Your task to perform on an android device: Open the web browser Image 0: 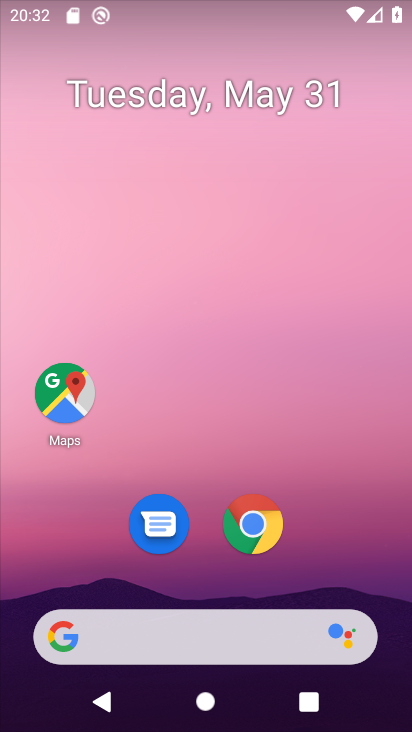
Step 0: drag from (306, 545) to (296, 81)
Your task to perform on an android device: Open the web browser Image 1: 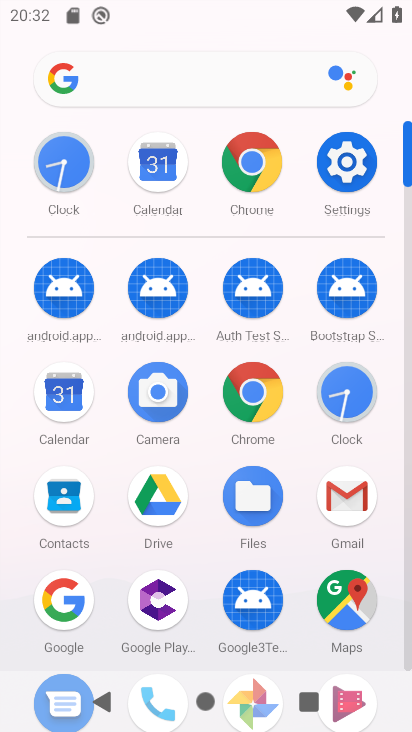
Step 1: click (261, 170)
Your task to perform on an android device: Open the web browser Image 2: 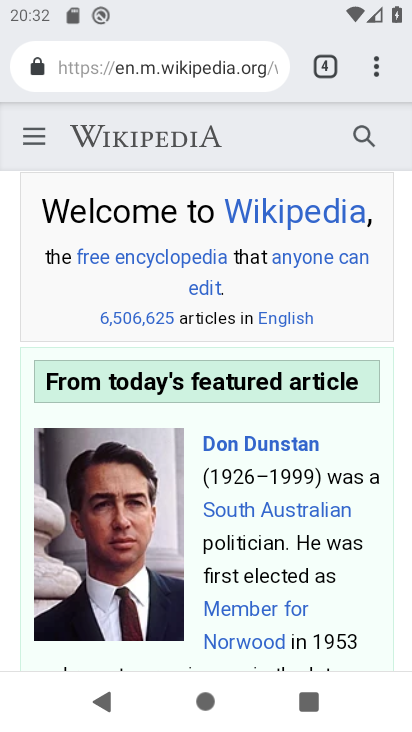
Step 2: press back button
Your task to perform on an android device: Open the web browser Image 3: 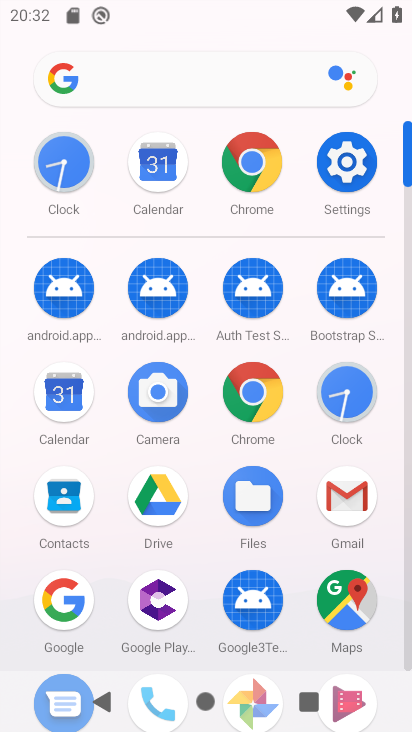
Step 3: press home button
Your task to perform on an android device: Open the web browser Image 4: 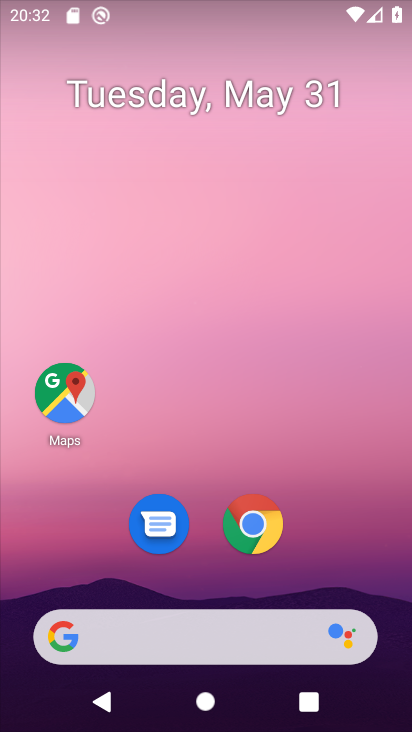
Step 4: click (244, 649)
Your task to perform on an android device: Open the web browser Image 5: 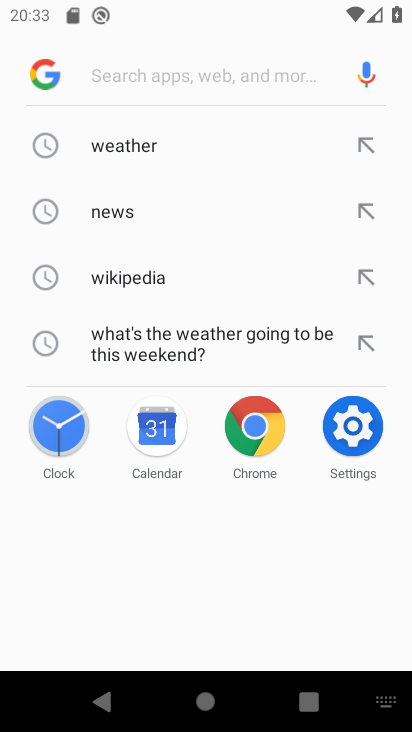
Step 5: task complete